Your task to perform on an android device: Go to settings Image 0: 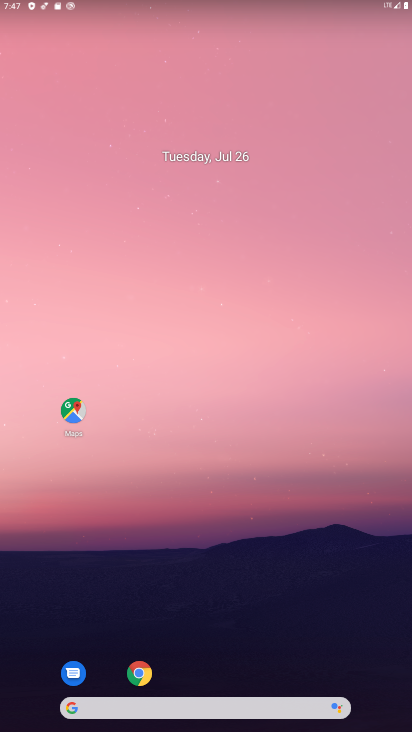
Step 0: drag from (350, 616) to (203, 65)
Your task to perform on an android device: Go to settings Image 1: 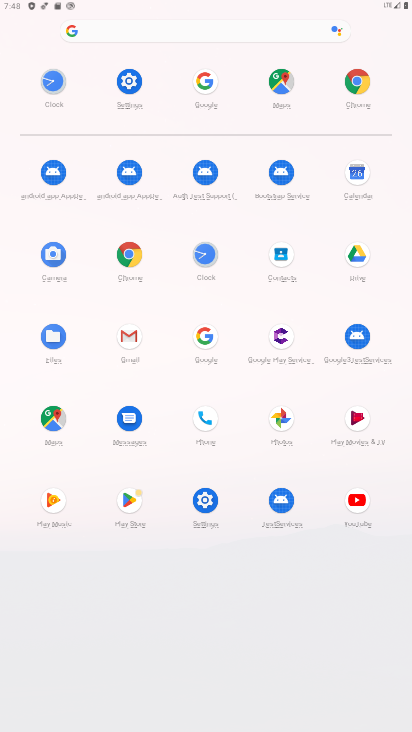
Step 1: click (194, 519)
Your task to perform on an android device: Go to settings Image 2: 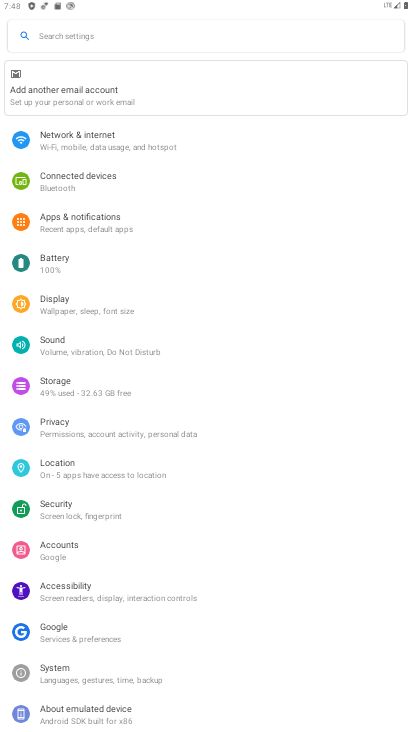
Step 2: task complete